Your task to perform on an android device: toggle javascript in the chrome app Image 0: 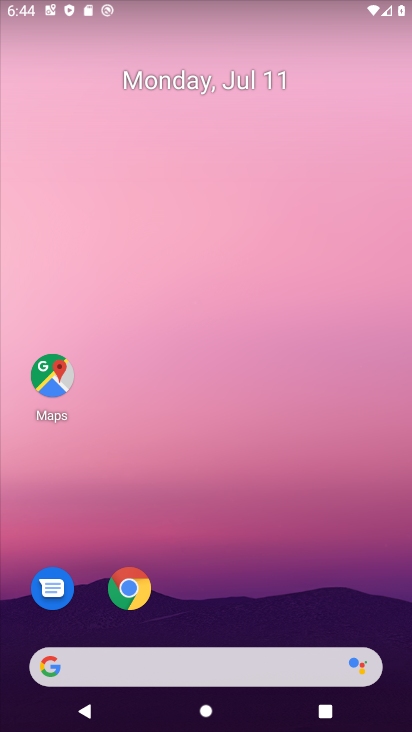
Step 0: drag from (343, 583) to (276, 16)
Your task to perform on an android device: toggle javascript in the chrome app Image 1: 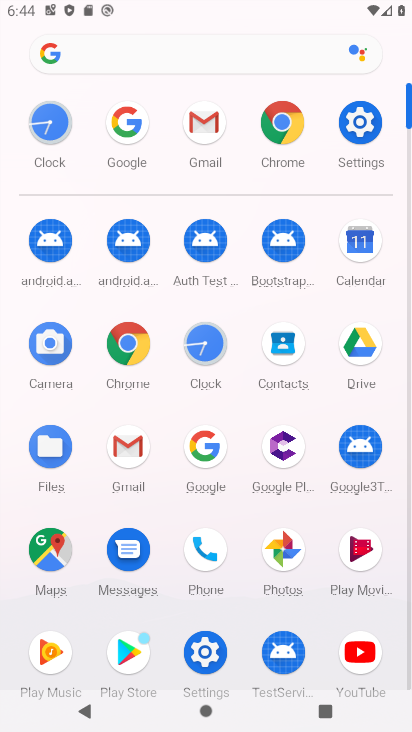
Step 1: click (276, 115)
Your task to perform on an android device: toggle javascript in the chrome app Image 2: 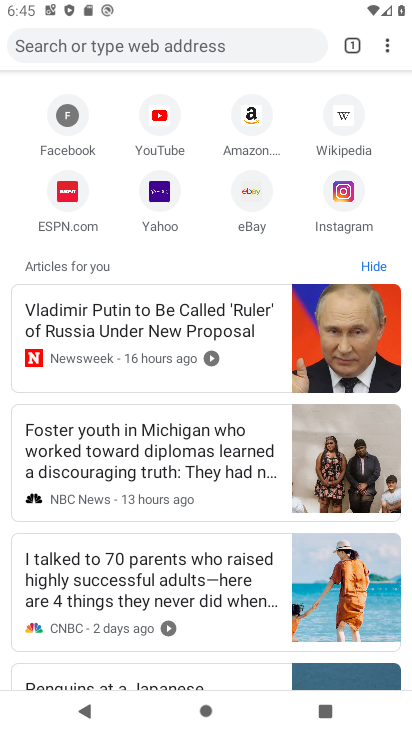
Step 2: click (387, 44)
Your task to perform on an android device: toggle javascript in the chrome app Image 3: 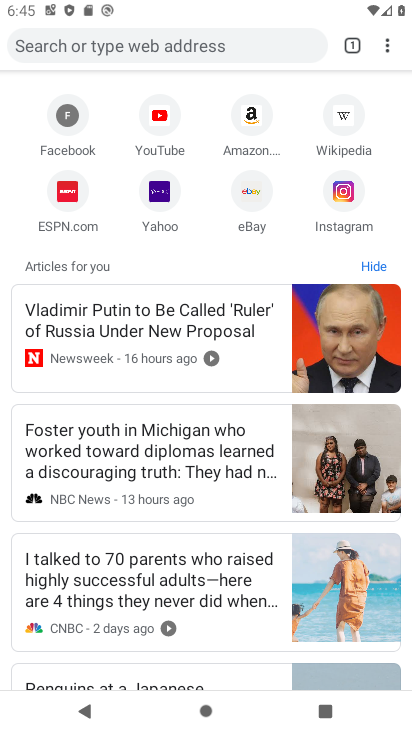
Step 3: click (387, 44)
Your task to perform on an android device: toggle javascript in the chrome app Image 4: 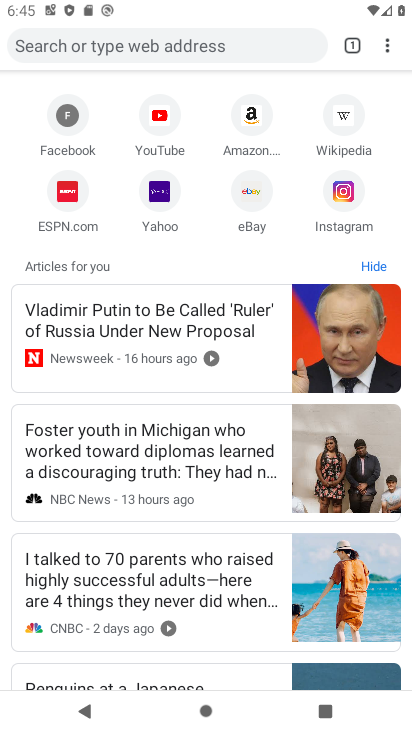
Step 4: click (382, 37)
Your task to perform on an android device: toggle javascript in the chrome app Image 5: 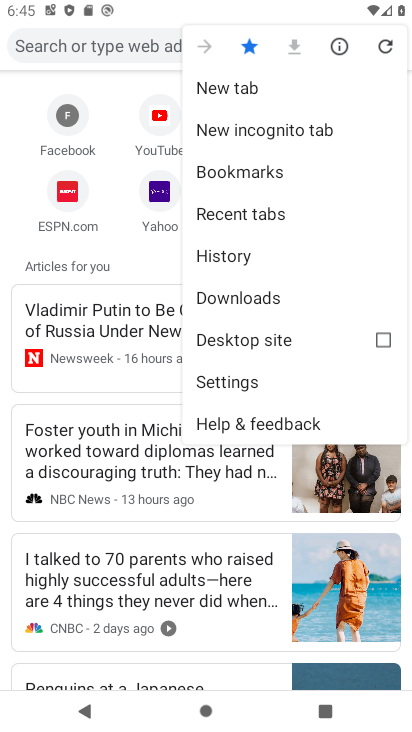
Step 5: click (235, 377)
Your task to perform on an android device: toggle javascript in the chrome app Image 6: 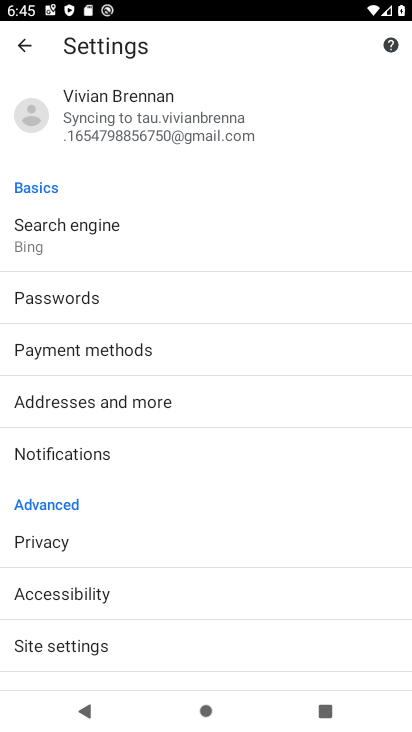
Step 6: click (94, 641)
Your task to perform on an android device: toggle javascript in the chrome app Image 7: 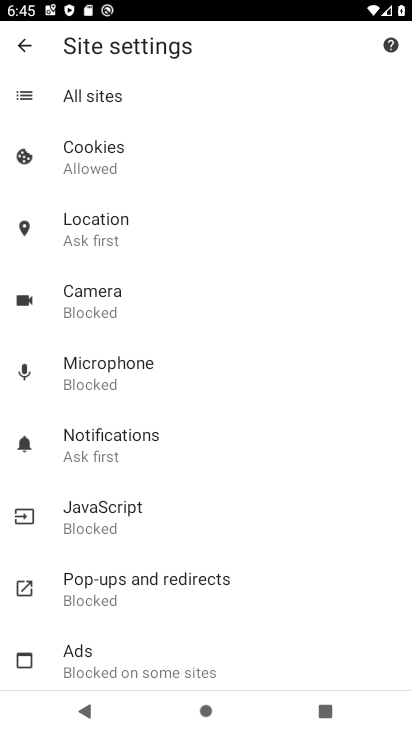
Step 7: click (117, 524)
Your task to perform on an android device: toggle javascript in the chrome app Image 8: 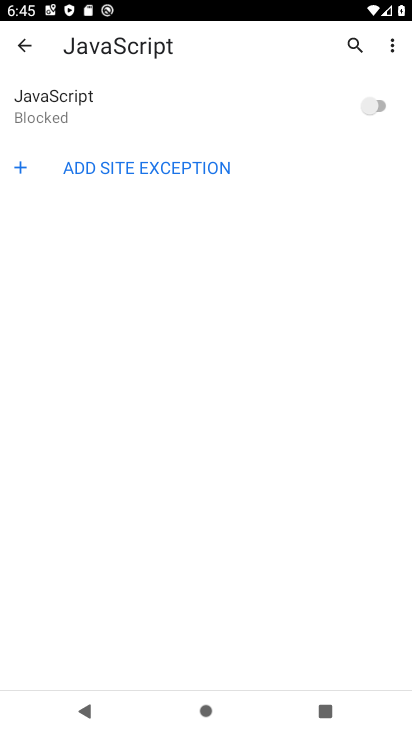
Step 8: click (364, 103)
Your task to perform on an android device: toggle javascript in the chrome app Image 9: 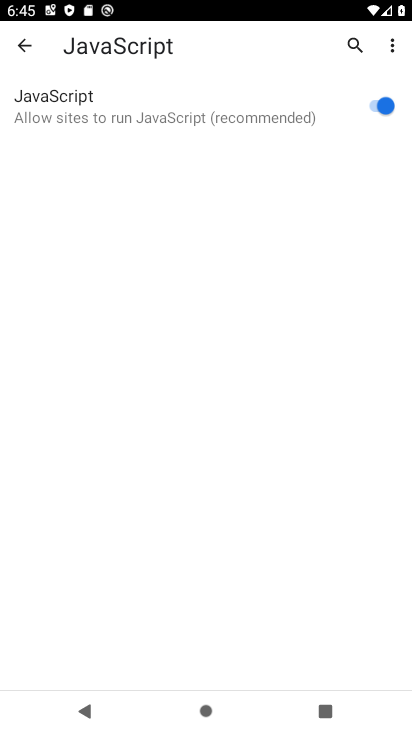
Step 9: task complete